Your task to perform on an android device: find which apps use the phone's location Image 0: 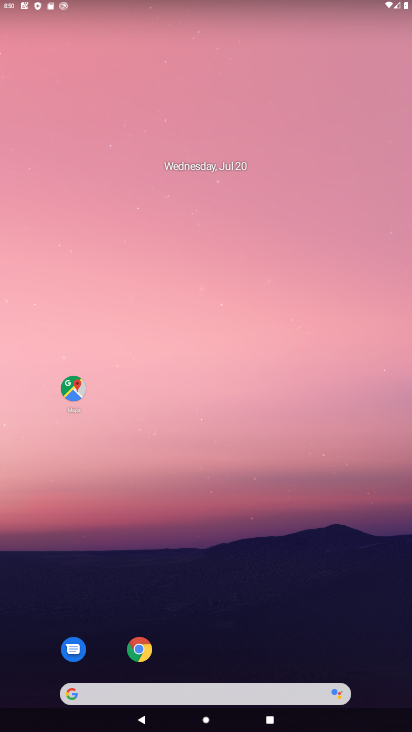
Step 0: drag from (263, 632) to (309, 172)
Your task to perform on an android device: find which apps use the phone's location Image 1: 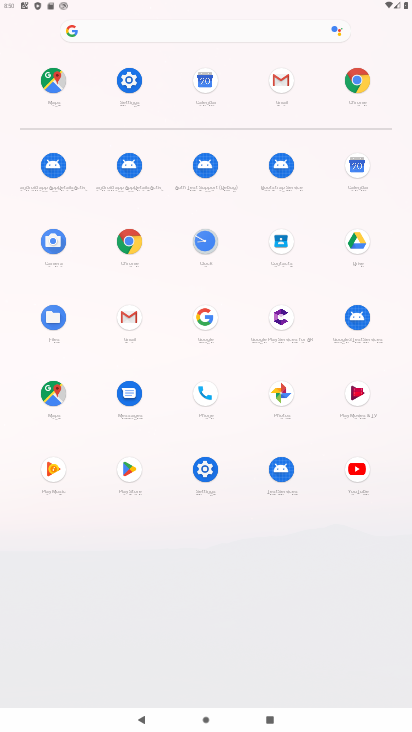
Step 1: click (144, 100)
Your task to perform on an android device: find which apps use the phone's location Image 2: 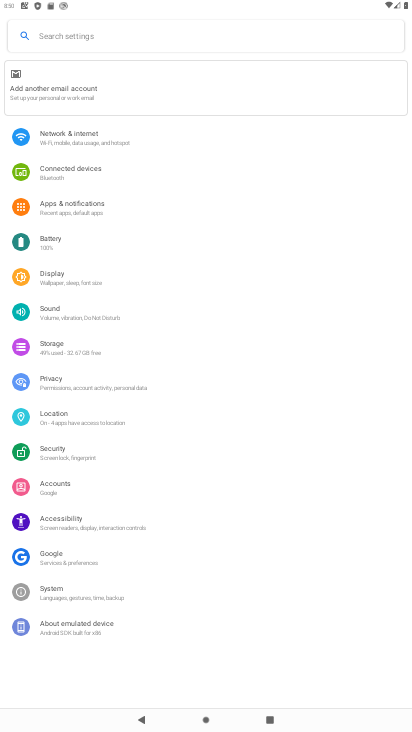
Step 2: task complete